Your task to perform on an android device: turn pop-ups on in chrome Image 0: 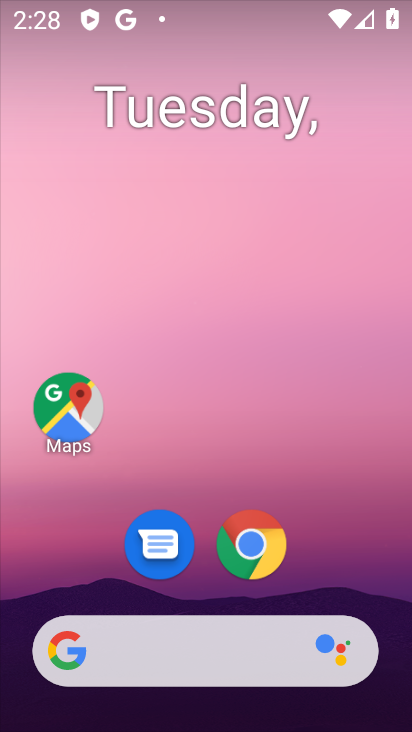
Step 0: click (239, 543)
Your task to perform on an android device: turn pop-ups on in chrome Image 1: 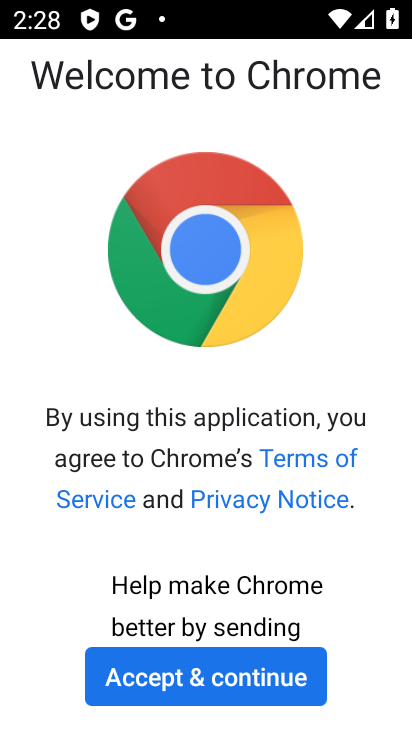
Step 1: click (218, 678)
Your task to perform on an android device: turn pop-ups on in chrome Image 2: 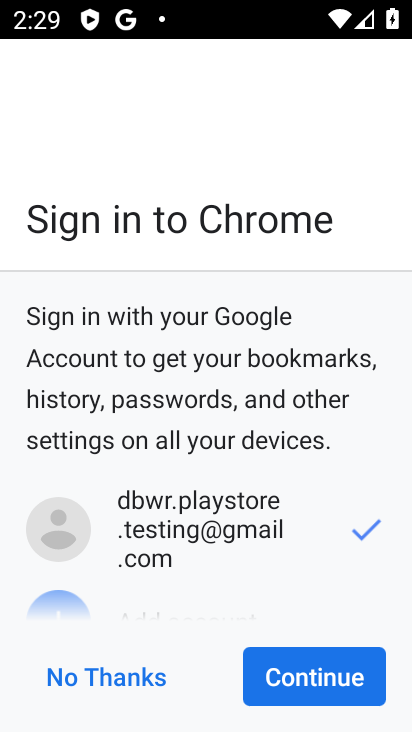
Step 2: click (343, 686)
Your task to perform on an android device: turn pop-ups on in chrome Image 3: 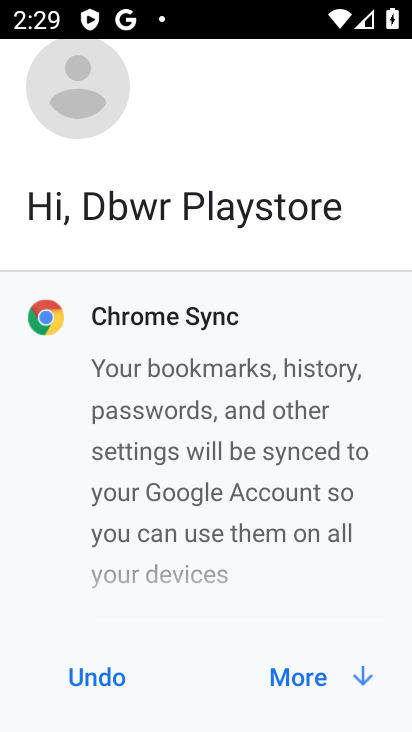
Step 3: click (310, 682)
Your task to perform on an android device: turn pop-ups on in chrome Image 4: 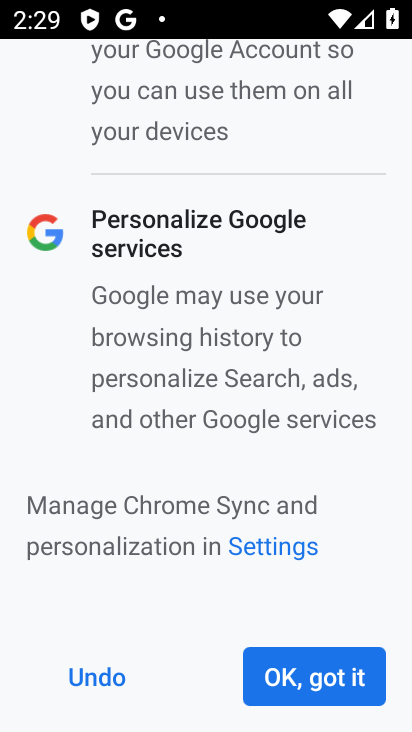
Step 4: click (314, 683)
Your task to perform on an android device: turn pop-ups on in chrome Image 5: 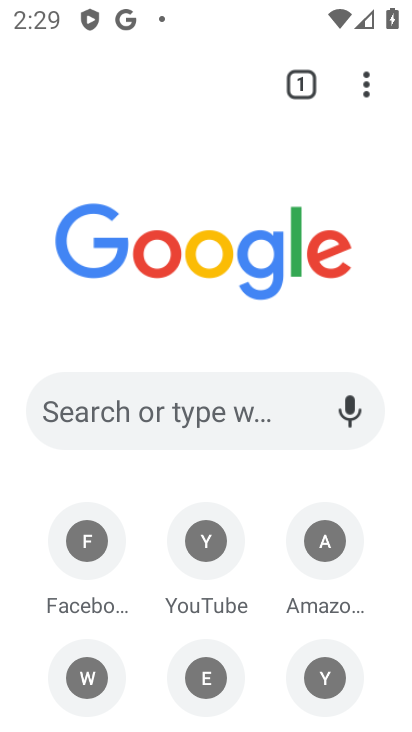
Step 5: drag from (364, 84) to (92, 586)
Your task to perform on an android device: turn pop-ups on in chrome Image 6: 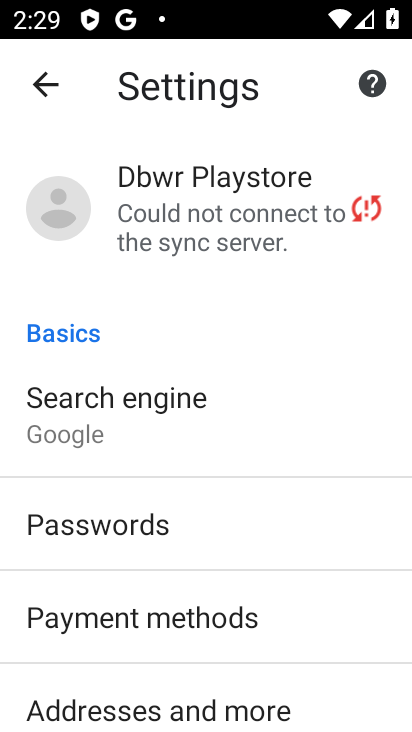
Step 6: drag from (169, 684) to (305, 173)
Your task to perform on an android device: turn pop-ups on in chrome Image 7: 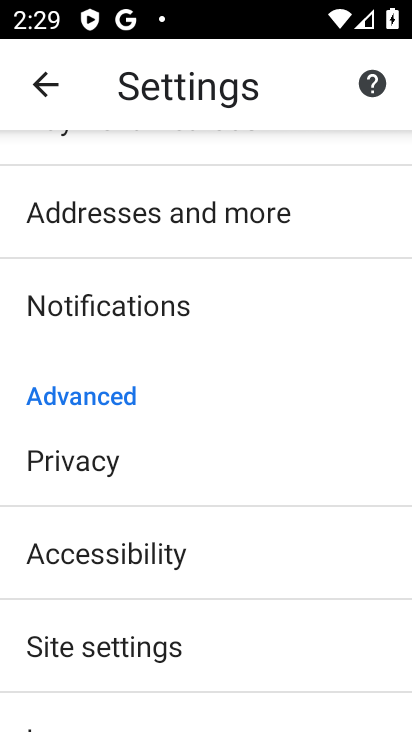
Step 7: click (162, 653)
Your task to perform on an android device: turn pop-ups on in chrome Image 8: 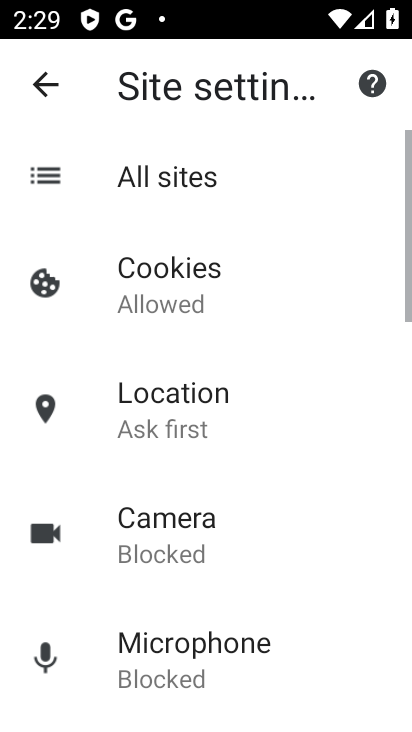
Step 8: drag from (198, 651) to (344, 71)
Your task to perform on an android device: turn pop-ups on in chrome Image 9: 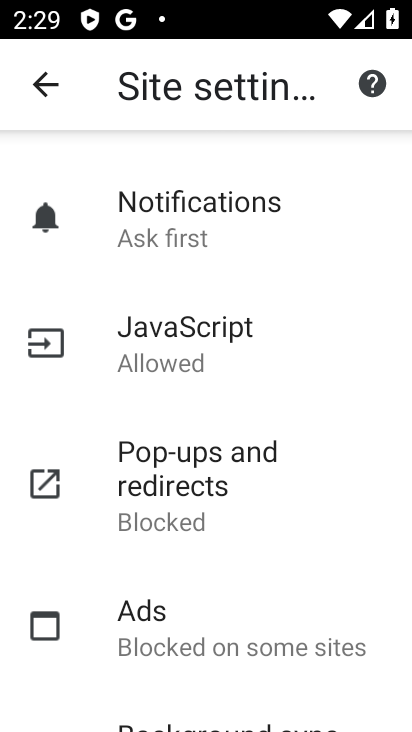
Step 9: click (222, 462)
Your task to perform on an android device: turn pop-ups on in chrome Image 10: 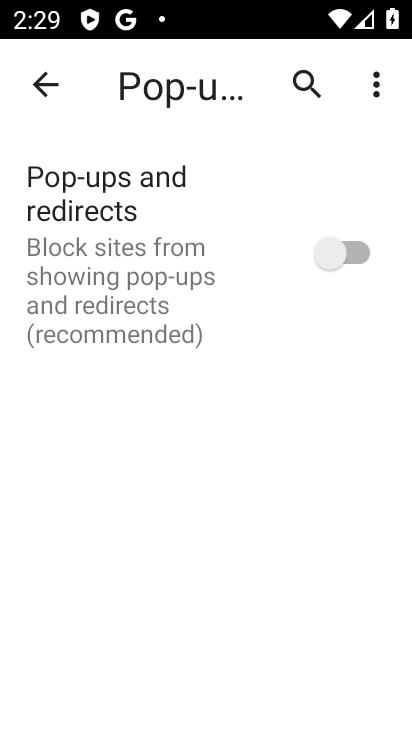
Step 10: click (347, 253)
Your task to perform on an android device: turn pop-ups on in chrome Image 11: 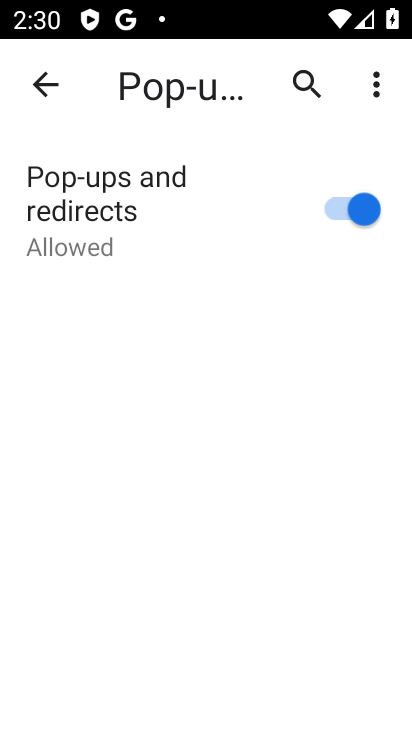
Step 11: task complete